Your task to perform on an android device: toggle wifi Image 0: 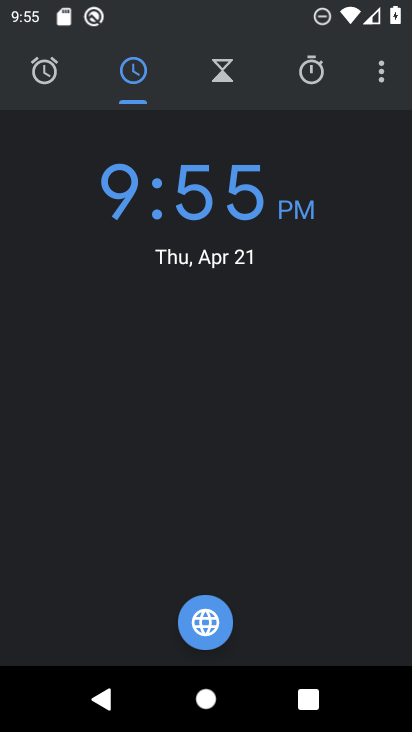
Step 0: press home button
Your task to perform on an android device: toggle wifi Image 1: 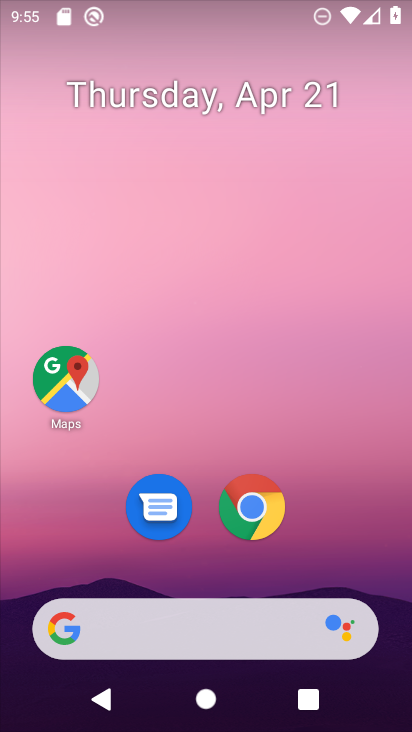
Step 1: drag from (212, 597) to (219, 197)
Your task to perform on an android device: toggle wifi Image 2: 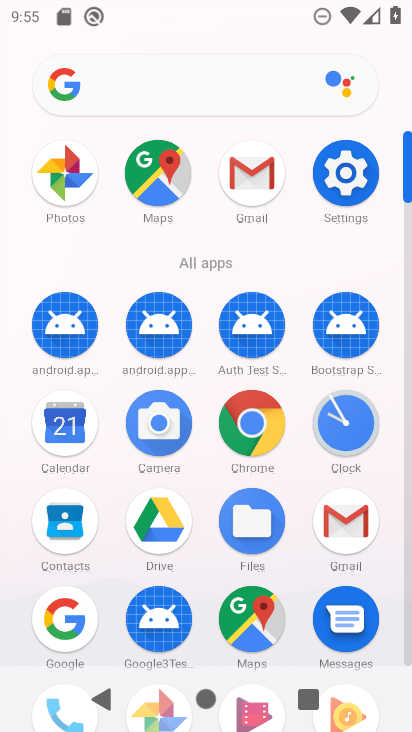
Step 2: click (348, 179)
Your task to perform on an android device: toggle wifi Image 3: 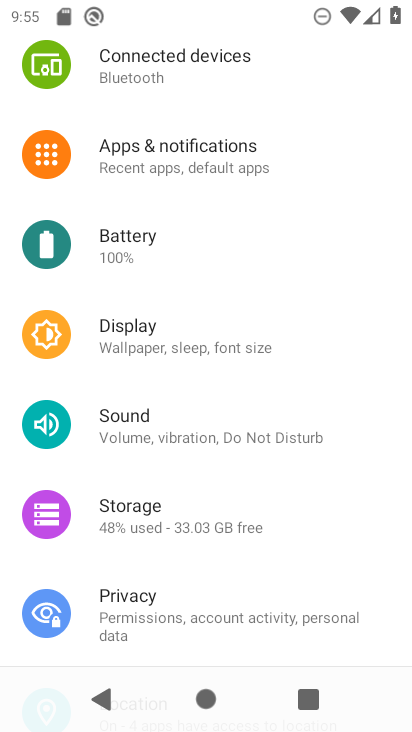
Step 3: drag from (247, 77) to (227, 543)
Your task to perform on an android device: toggle wifi Image 4: 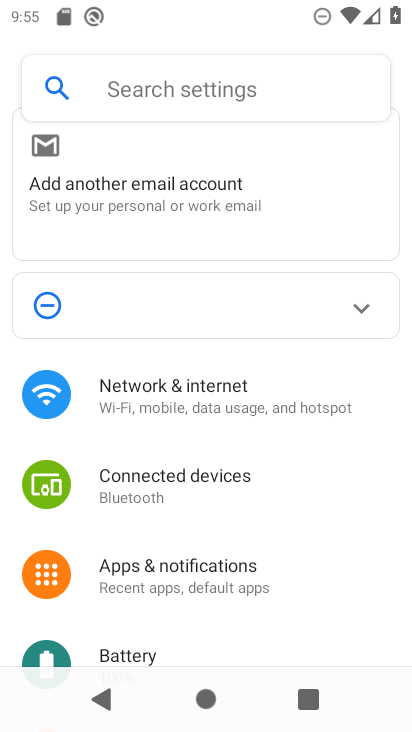
Step 4: click (218, 405)
Your task to perform on an android device: toggle wifi Image 5: 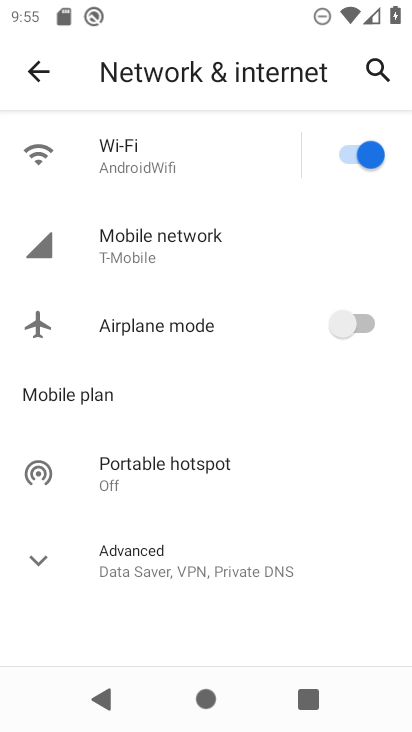
Step 5: click (349, 153)
Your task to perform on an android device: toggle wifi Image 6: 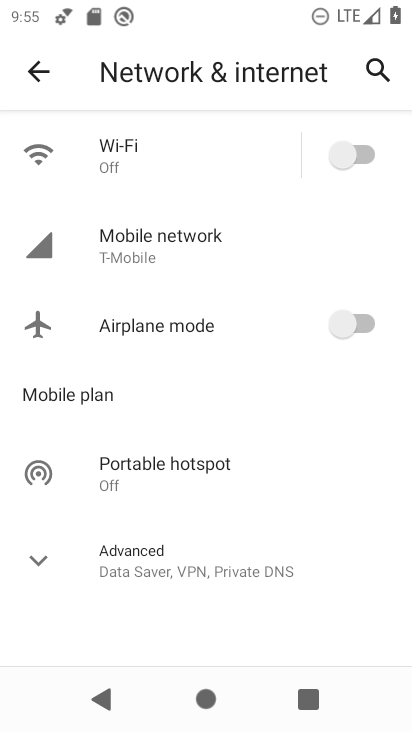
Step 6: task complete